Your task to perform on an android device: Set the phone to "Do not disturb". Image 0: 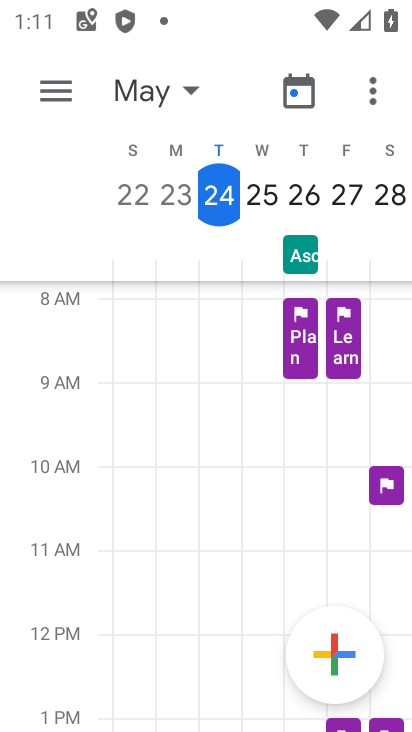
Step 0: press home button
Your task to perform on an android device: Set the phone to "Do not disturb". Image 1: 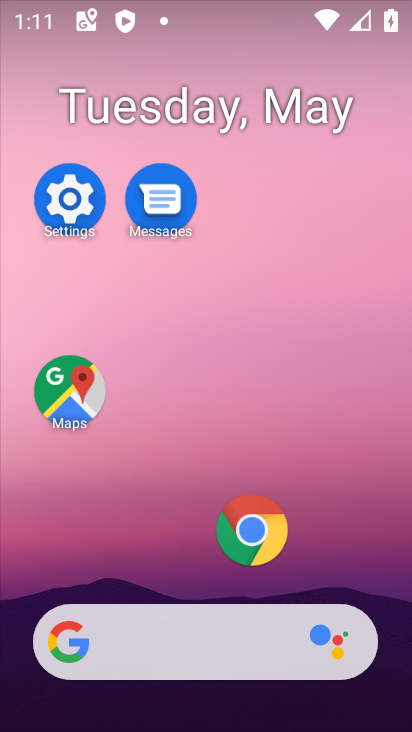
Step 1: drag from (142, 569) to (248, 227)
Your task to perform on an android device: Set the phone to "Do not disturb". Image 2: 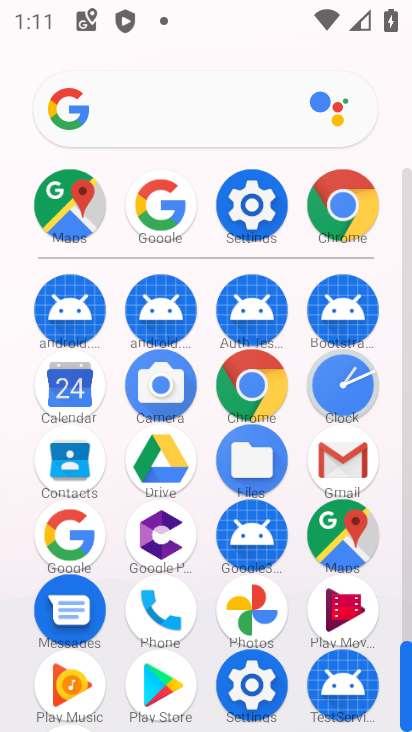
Step 2: click (256, 696)
Your task to perform on an android device: Set the phone to "Do not disturb". Image 3: 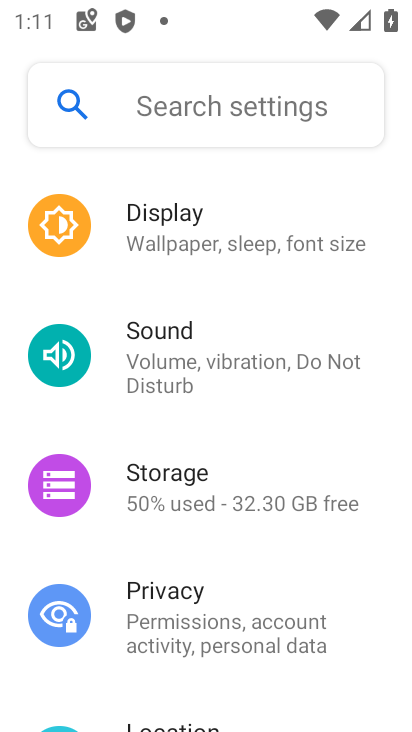
Step 3: click (235, 386)
Your task to perform on an android device: Set the phone to "Do not disturb". Image 4: 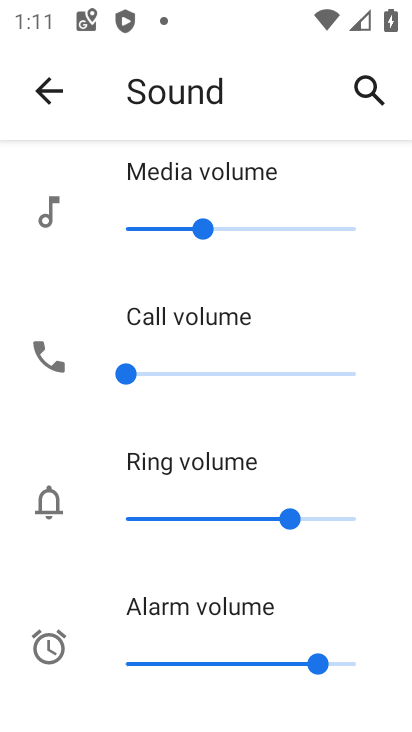
Step 4: drag from (183, 550) to (239, 210)
Your task to perform on an android device: Set the phone to "Do not disturb". Image 5: 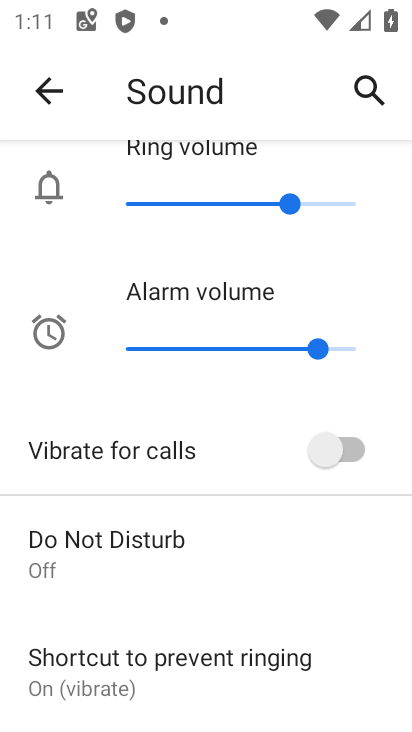
Step 5: click (193, 553)
Your task to perform on an android device: Set the phone to "Do not disturb". Image 6: 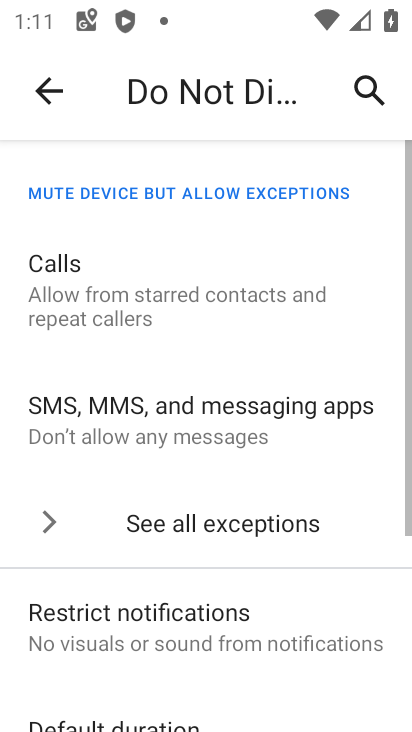
Step 6: drag from (192, 552) to (204, 203)
Your task to perform on an android device: Set the phone to "Do not disturb". Image 7: 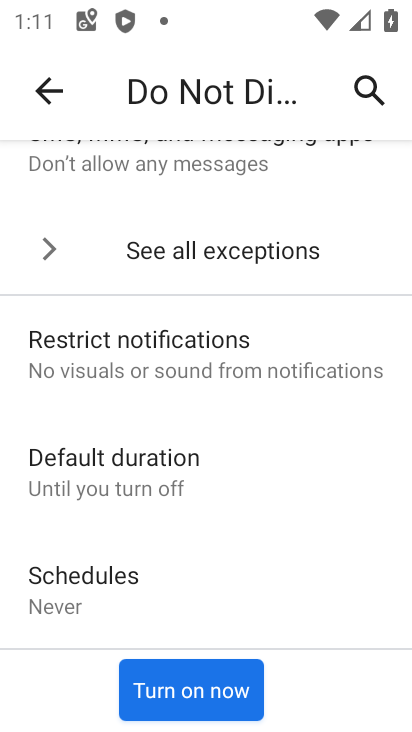
Step 7: click (188, 689)
Your task to perform on an android device: Set the phone to "Do not disturb". Image 8: 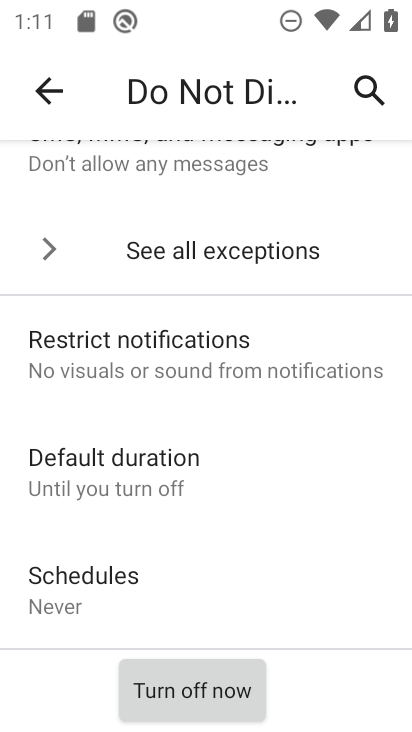
Step 8: task complete